Your task to perform on an android device: Open my contact list Image 0: 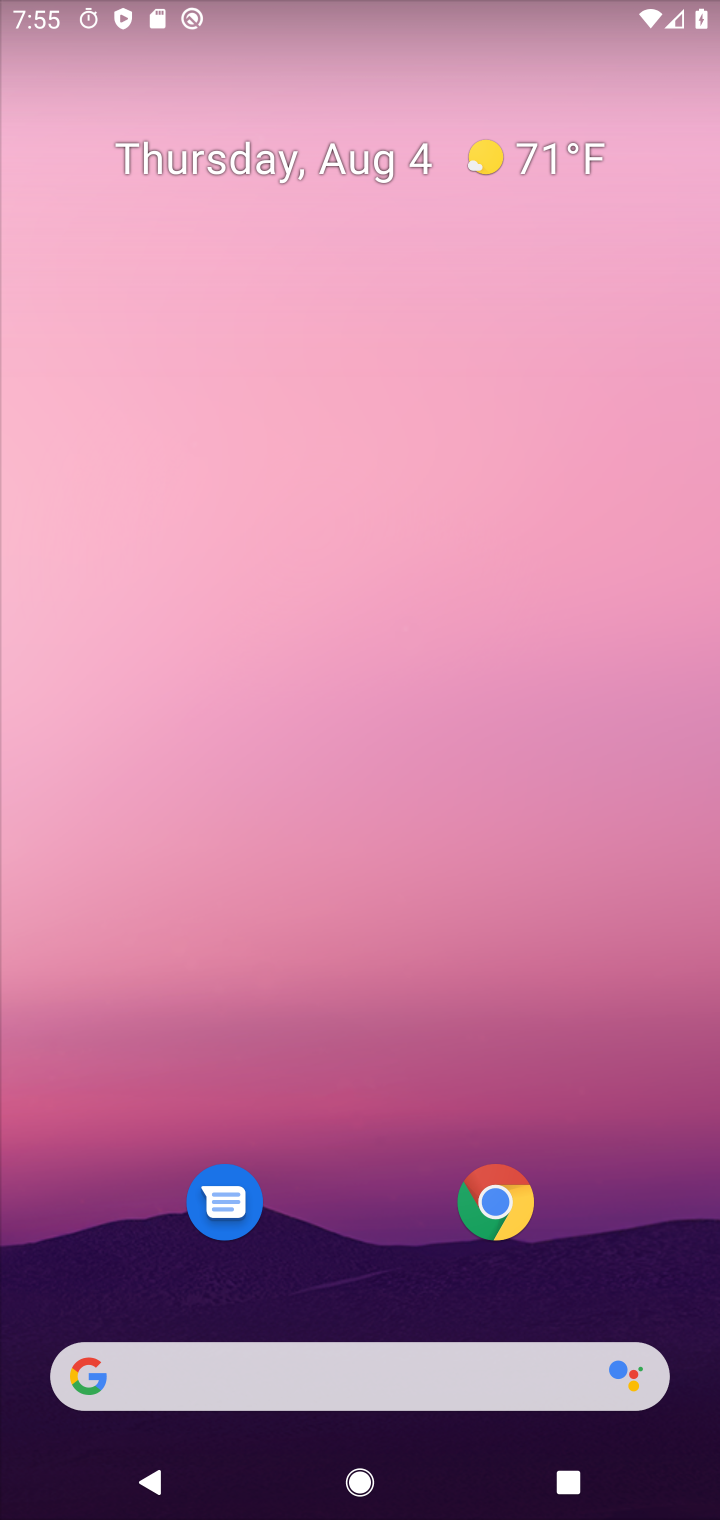
Step 0: click (413, 276)
Your task to perform on an android device: Open my contact list Image 1: 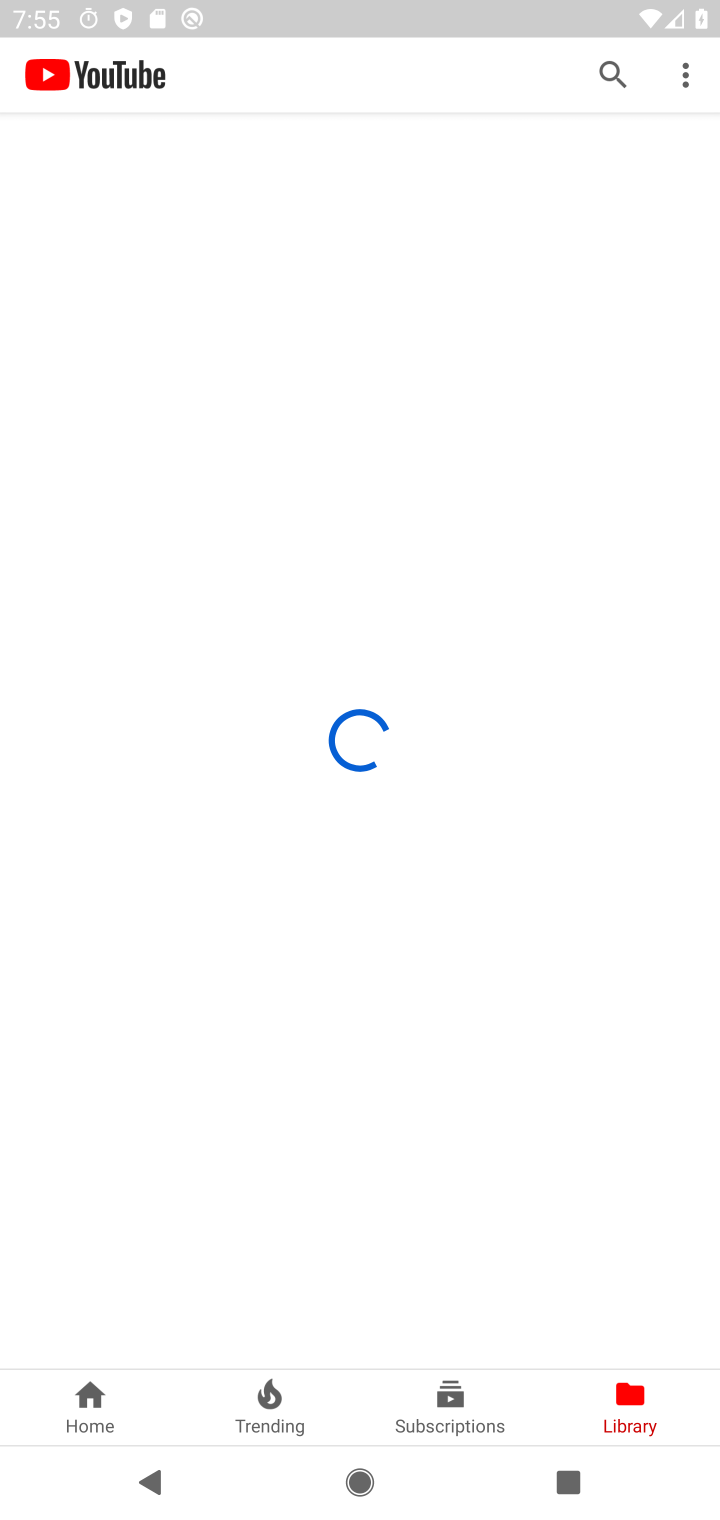
Step 1: press home button
Your task to perform on an android device: Open my contact list Image 2: 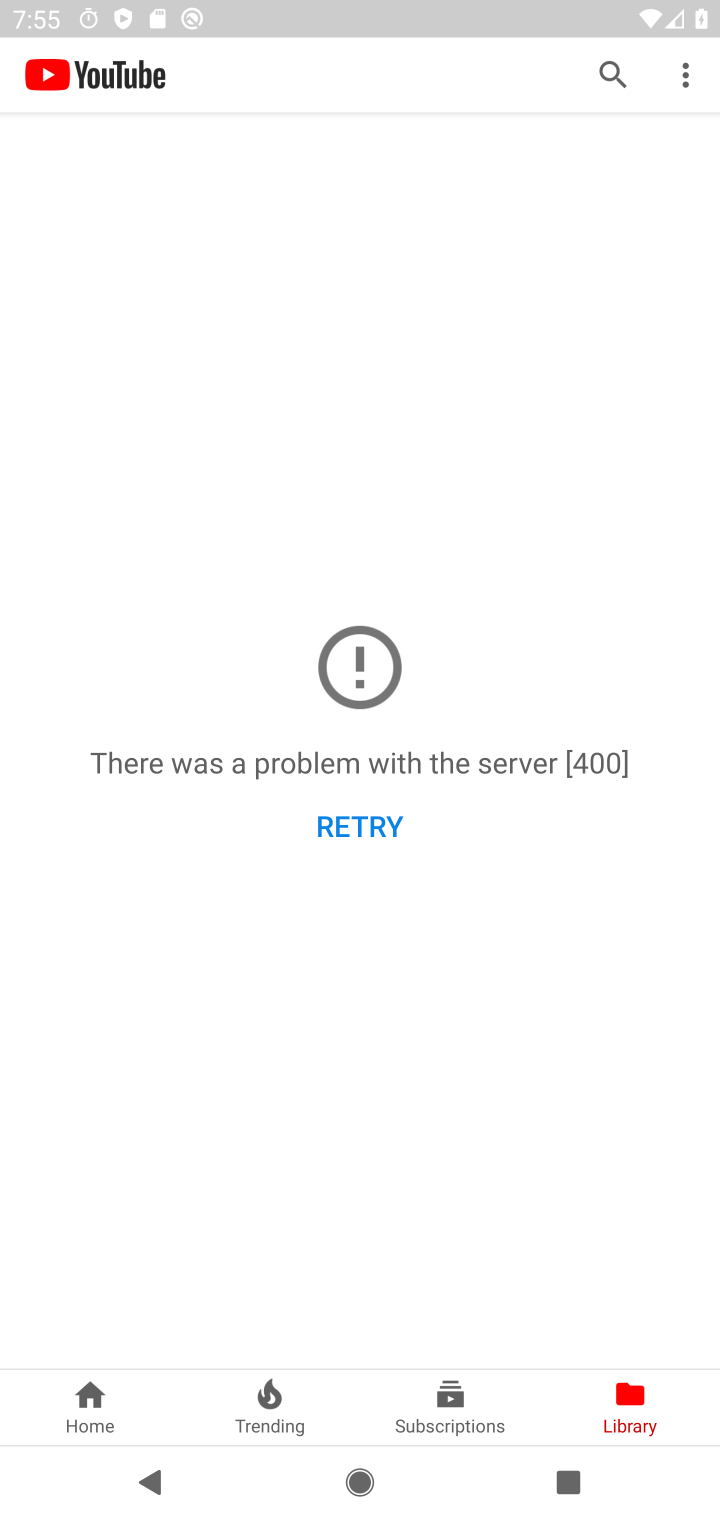
Step 2: drag from (262, 1120) to (375, 198)
Your task to perform on an android device: Open my contact list Image 3: 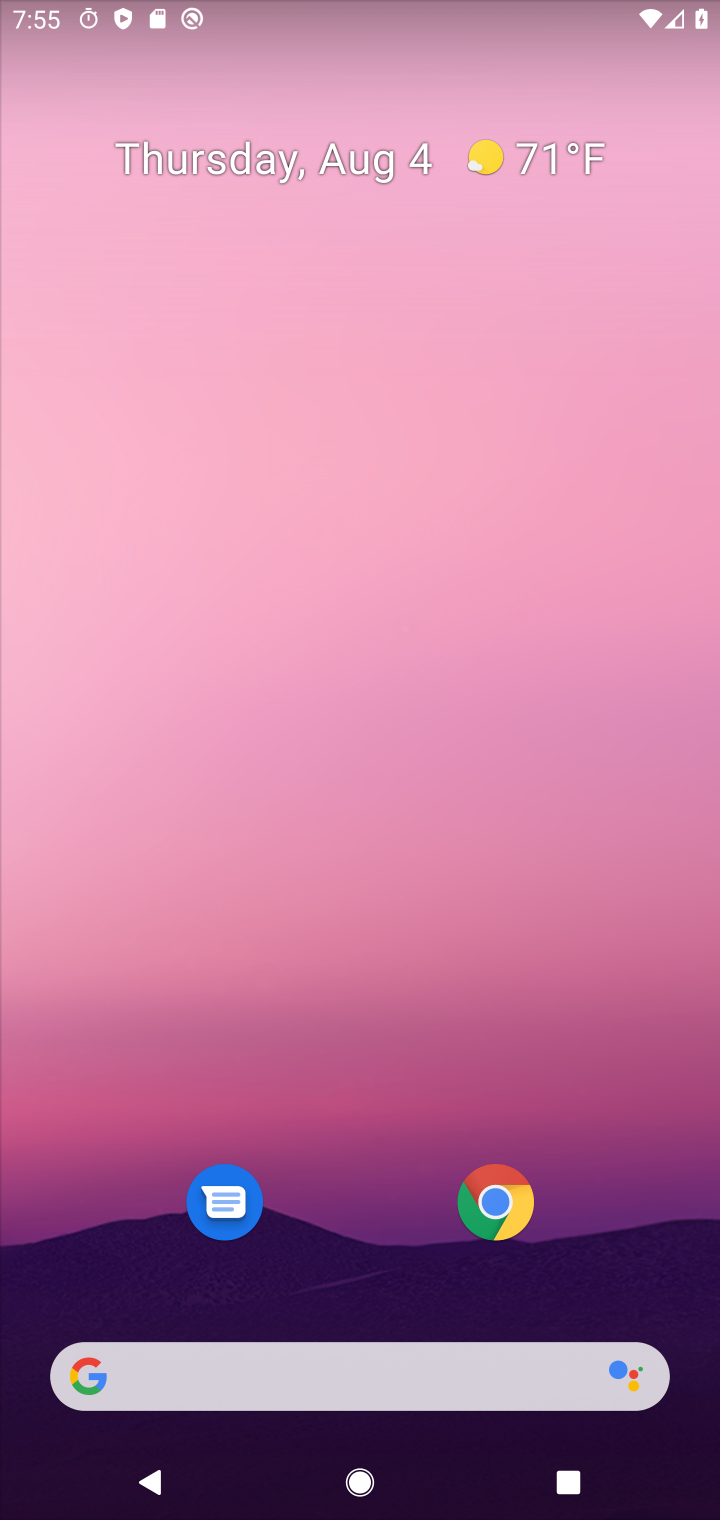
Step 3: drag from (359, 1037) to (467, 193)
Your task to perform on an android device: Open my contact list Image 4: 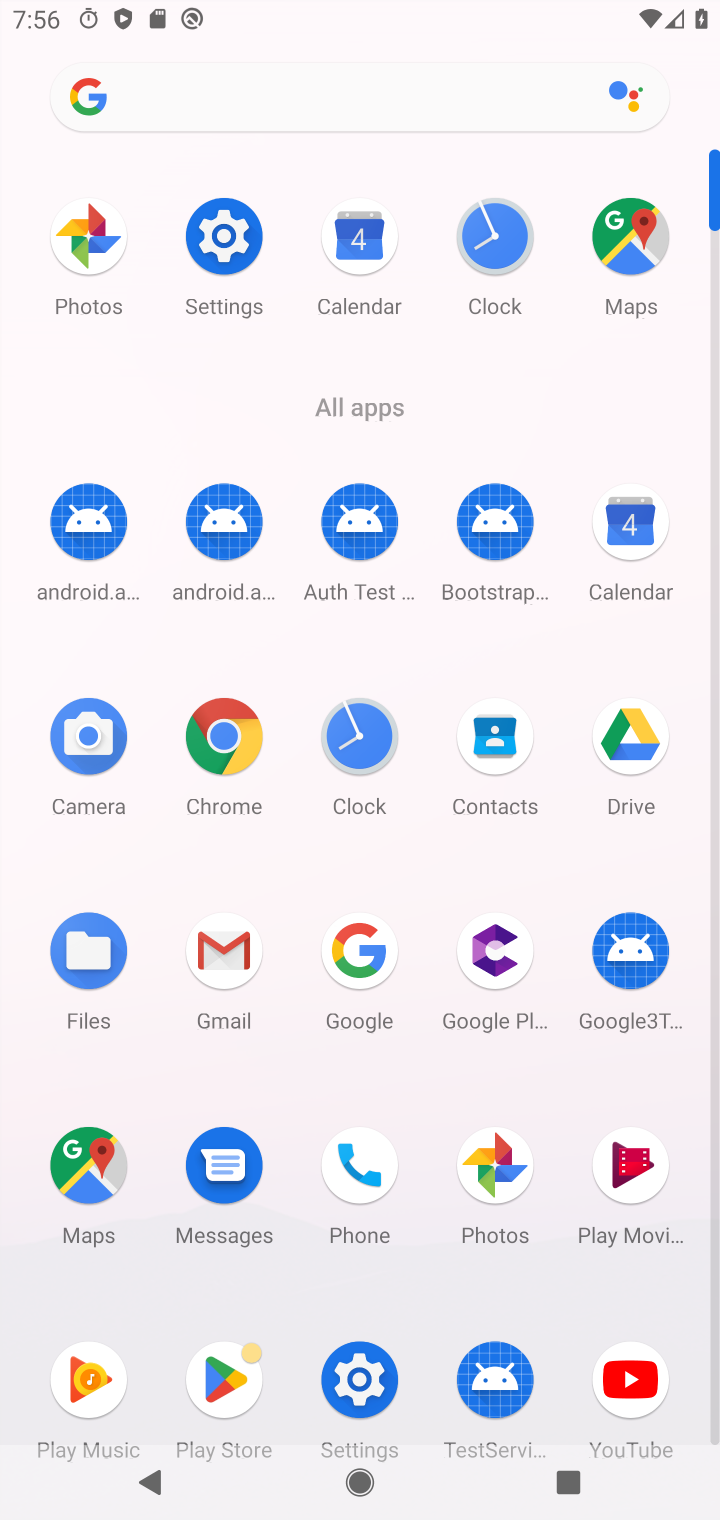
Step 4: click (494, 727)
Your task to perform on an android device: Open my contact list Image 5: 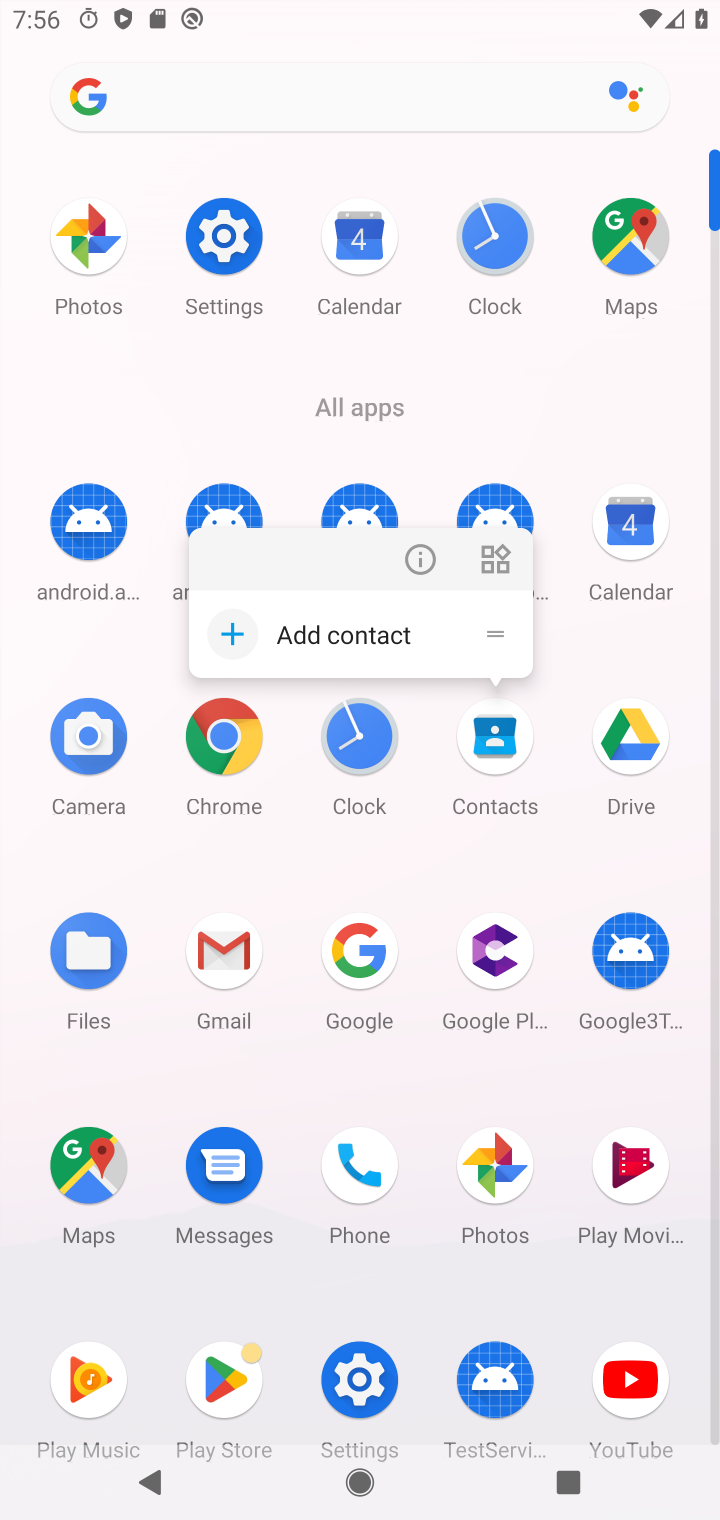
Step 5: click (404, 541)
Your task to perform on an android device: Open my contact list Image 6: 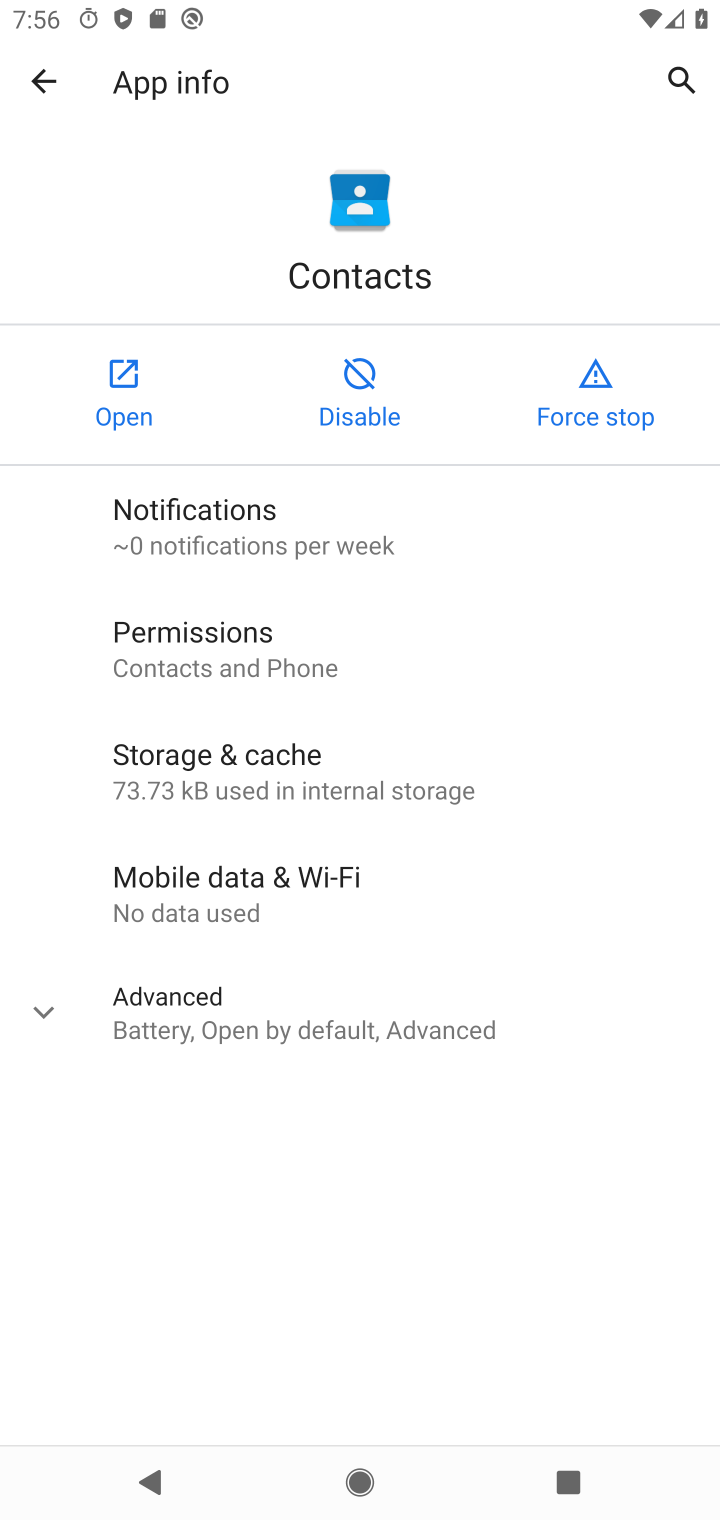
Step 6: click (96, 354)
Your task to perform on an android device: Open my contact list Image 7: 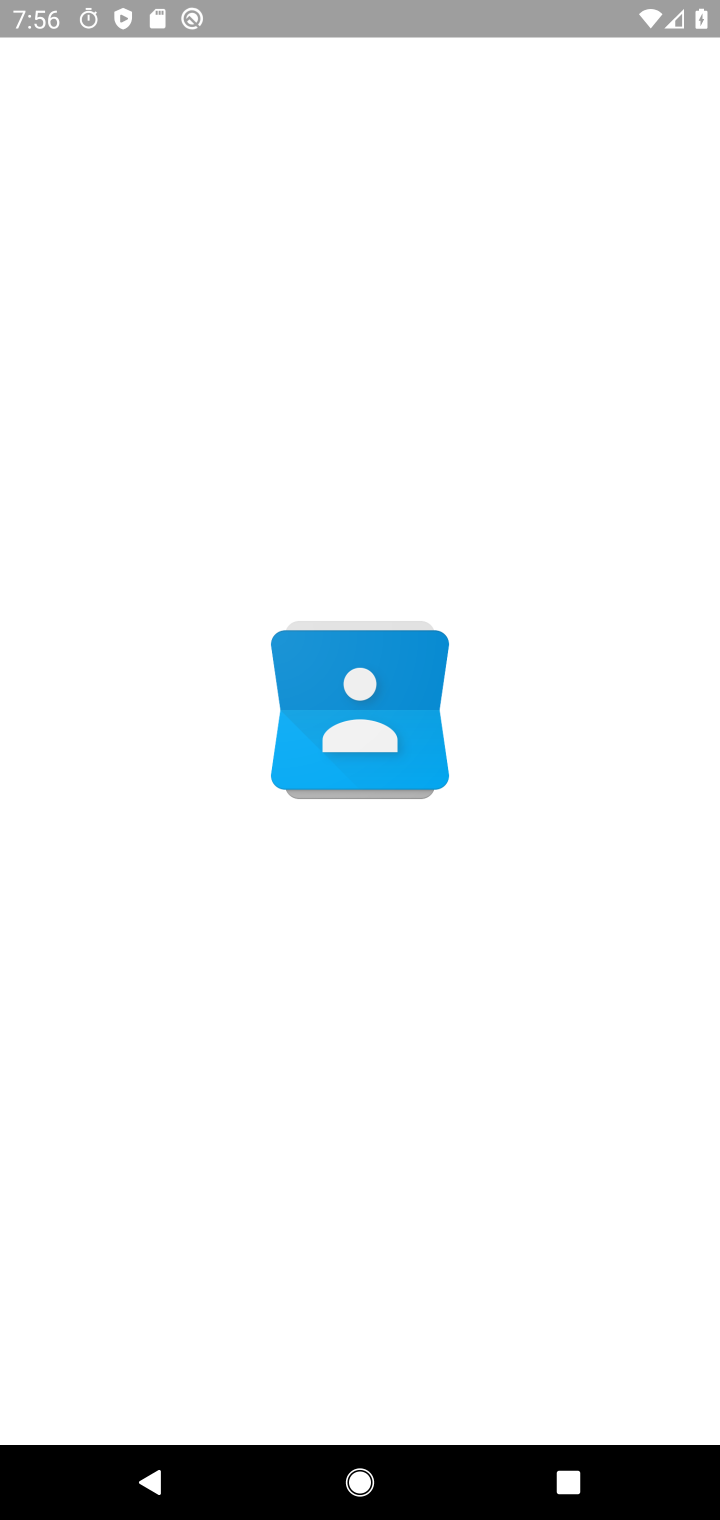
Step 7: task complete